Your task to perform on an android device: turn on improve location accuracy Image 0: 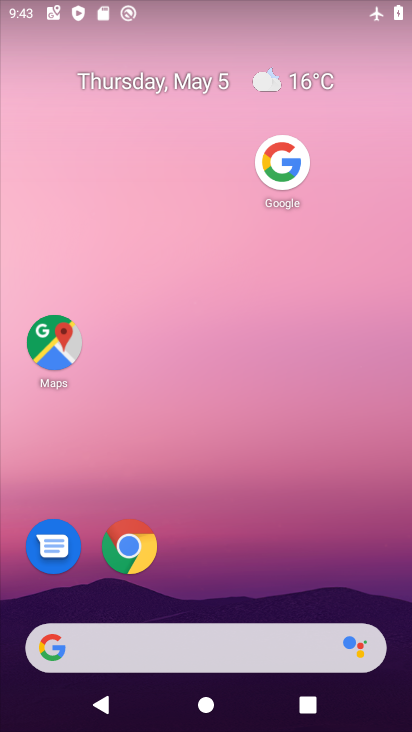
Step 0: drag from (212, 641) to (351, 65)
Your task to perform on an android device: turn on improve location accuracy Image 1: 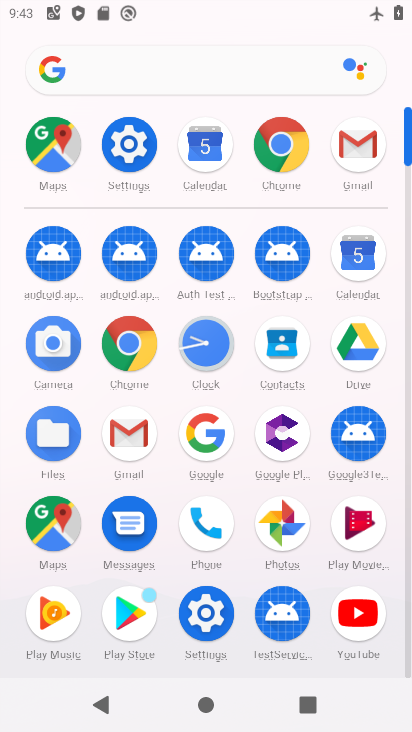
Step 1: click (133, 150)
Your task to perform on an android device: turn on improve location accuracy Image 2: 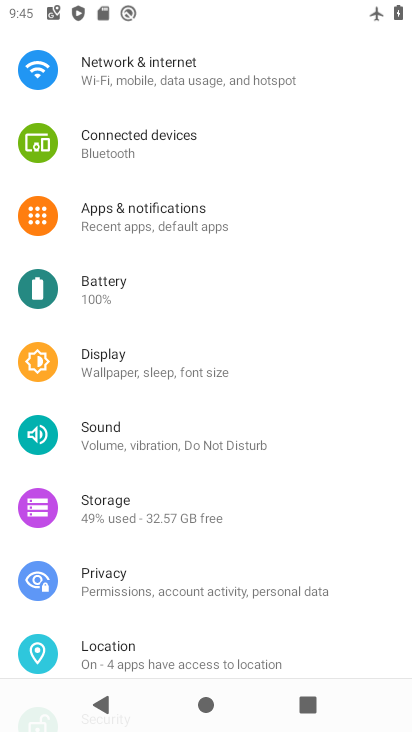
Step 2: click (114, 651)
Your task to perform on an android device: turn on improve location accuracy Image 3: 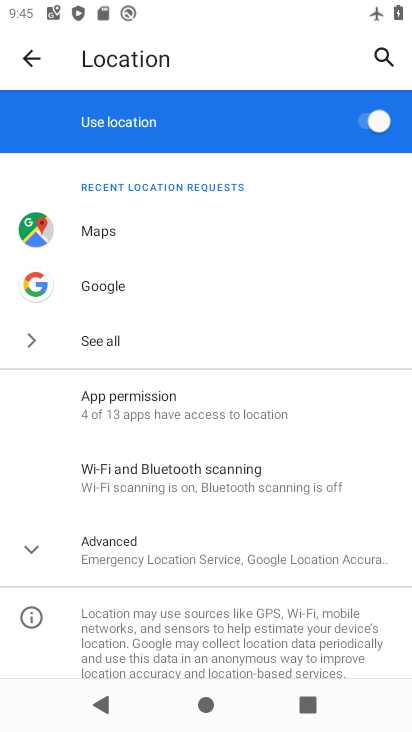
Step 3: click (119, 545)
Your task to perform on an android device: turn on improve location accuracy Image 4: 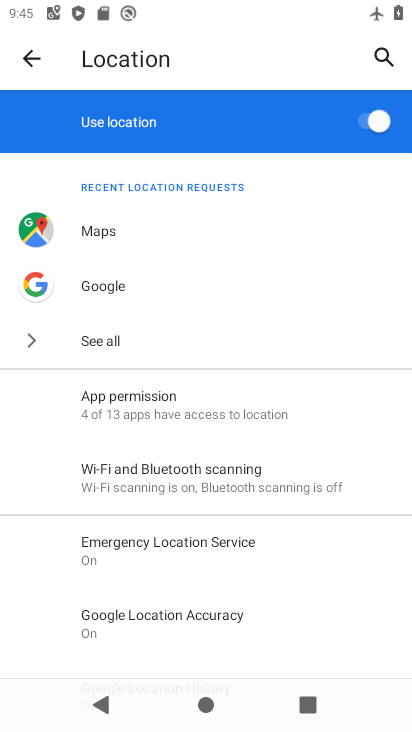
Step 4: drag from (210, 567) to (283, 287)
Your task to perform on an android device: turn on improve location accuracy Image 5: 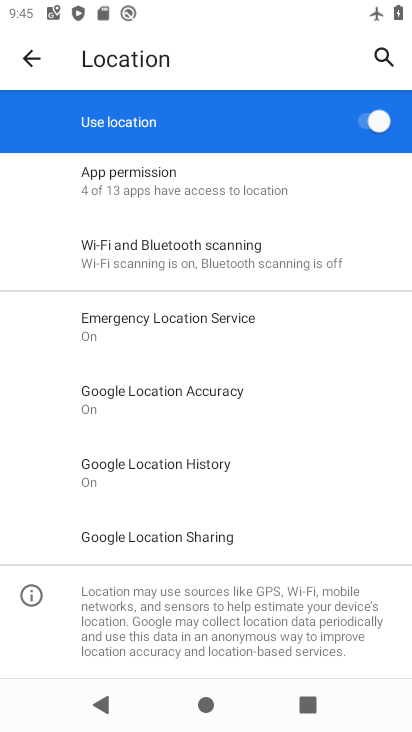
Step 5: click (191, 393)
Your task to perform on an android device: turn on improve location accuracy Image 6: 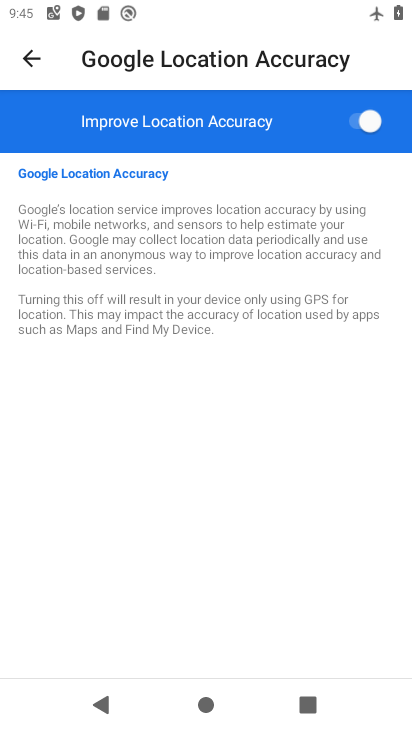
Step 6: task complete